Your task to perform on an android device: What's the weather? Image 0: 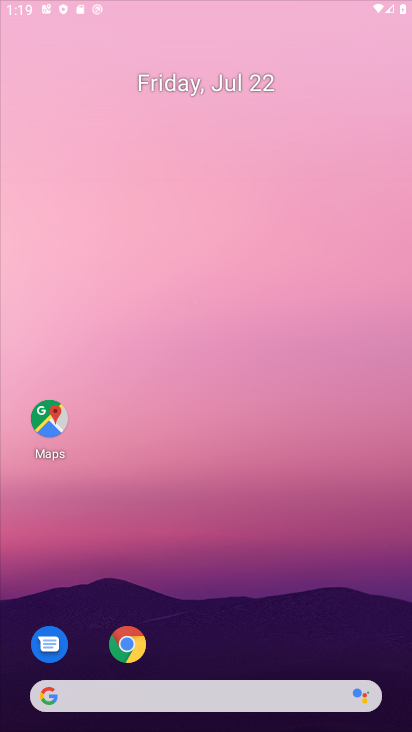
Step 0: press home button
Your task to perform on an android device: What's the weather? Image 1: 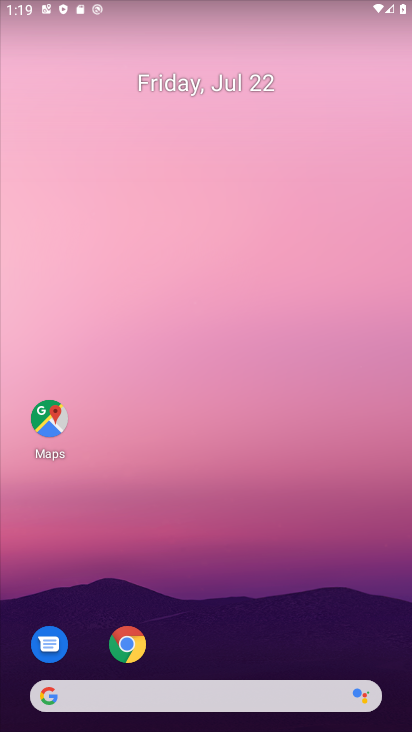
Step 1: click (175, 687)
Your task to perform on an android device: What's the weather? Image 2: 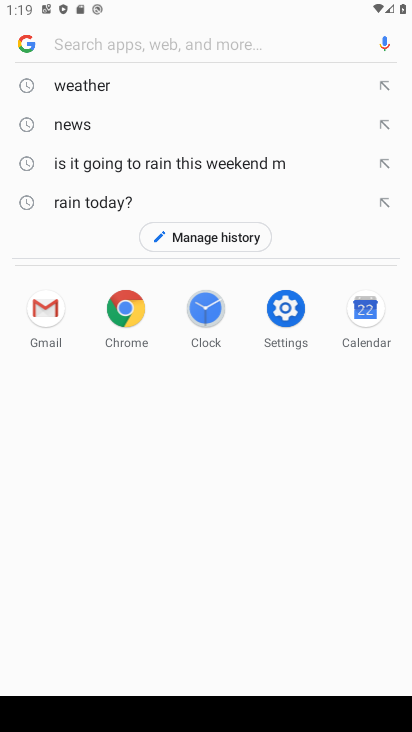
Step 2: click (118, 82)
Your task to perform on an android device: What's the weather? Image 3: 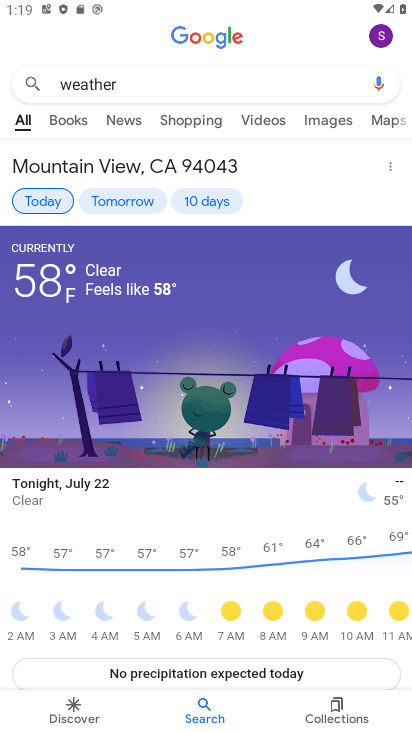
Step 3: task complete